Your task to perform on an android device: Open Google Maps Image 0: 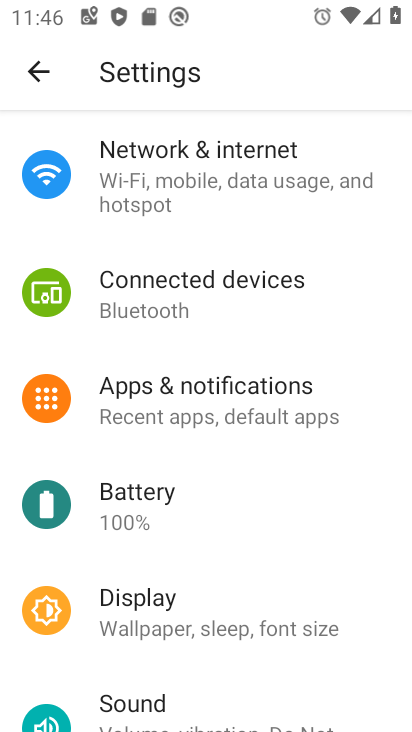
Step 0: press home button
Your task to perform on an android device: Open Google Maps Image 1: 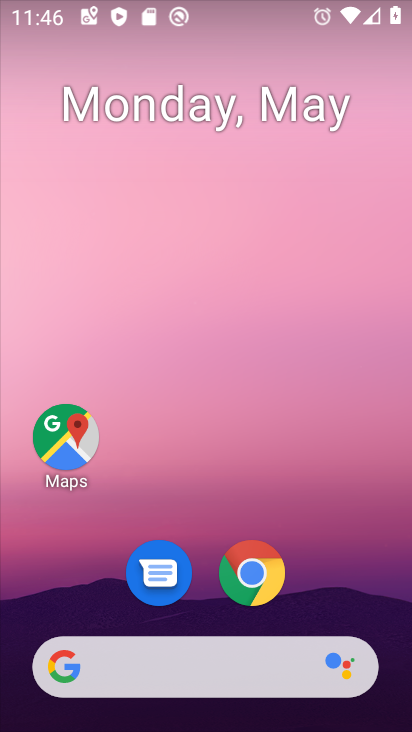
Step 1: click (55, 448)
Your task to perform on an android device: Open Google Maps Image 2: 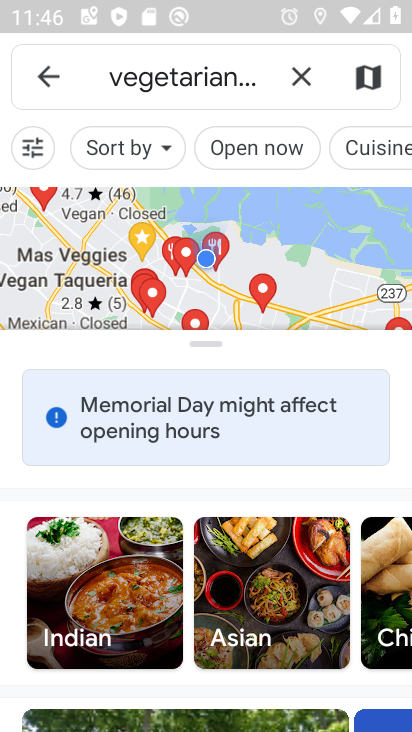
Step 2: task complete